Your task to perform on an android device: check battery use Image 0: 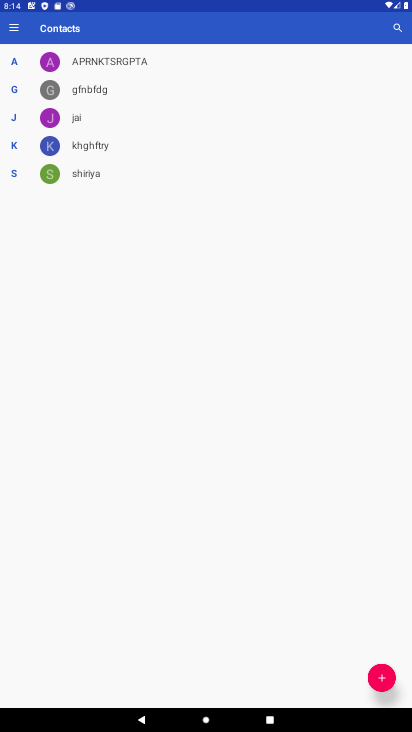
Step 0: press home button
Your task to perform on an android device: check battery use Image 1: 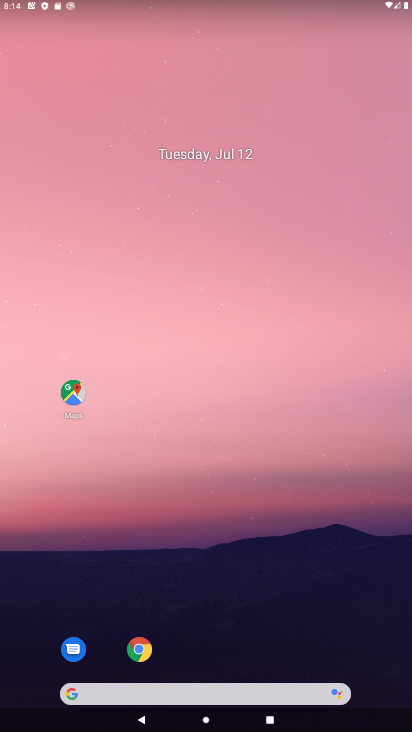
Step 1: drag from (189, 650) to (203, 165)
Your task to perform on an android device: check battery use Image 2: 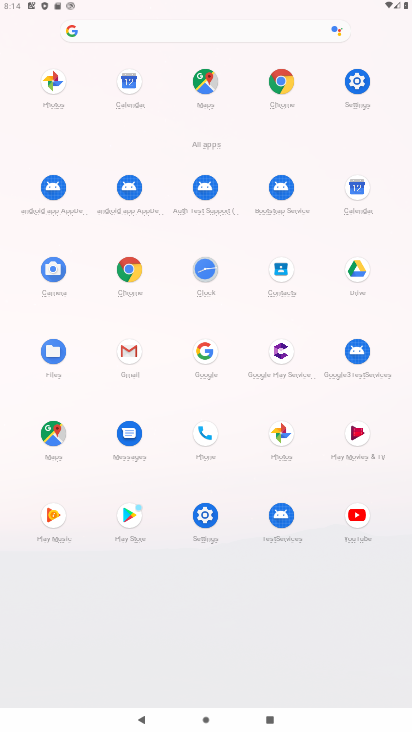
Step 2: click (358, 80)
Your task to perform on an android device: check battery use Image 3: 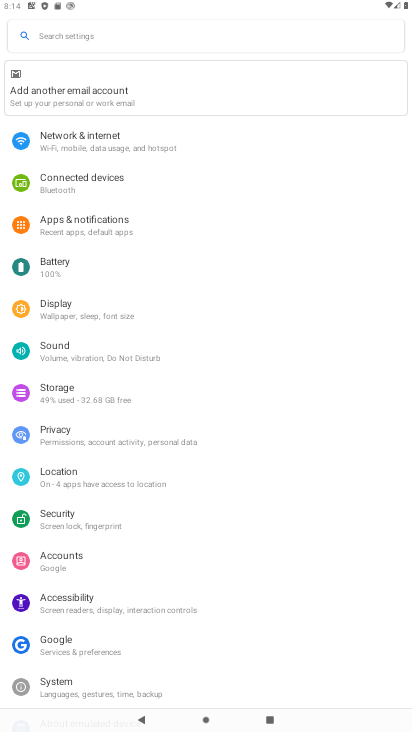
Step 3: click (88, 270)
Your task to perform on an android device: check battery use Image 4: 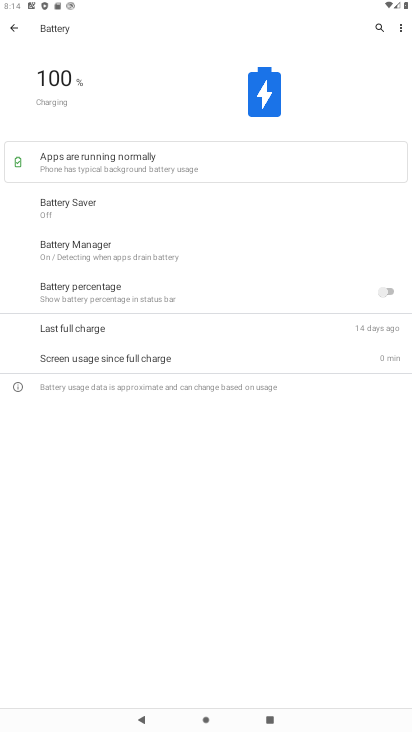
Step 4: click (397, 31)
Your task to perform on an android device: check battery use Image 5: 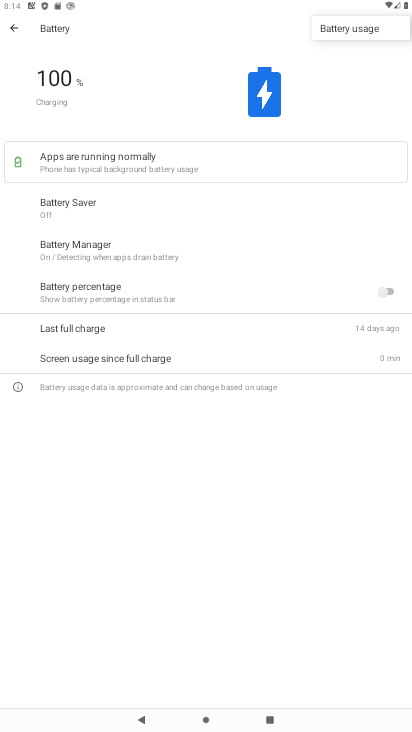
Step 5: click (337, 30)
Your task to perform on an android device: check battery use Image 6: 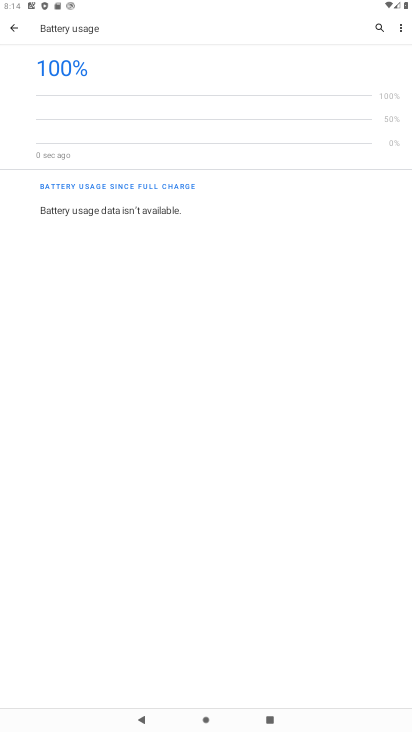
Step 6: task complete